Your task to perform on an android device: Find coffee shops on Maps Image 0: 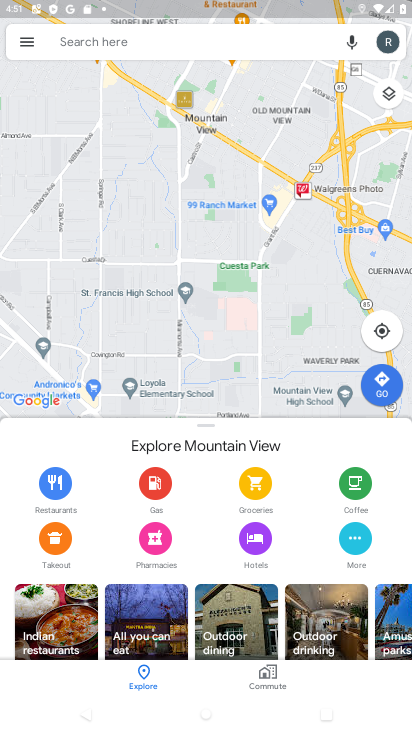
Step 0: click (123, 43)
Your task to perform on an android device: Find coffee shops on Maps Image 1: 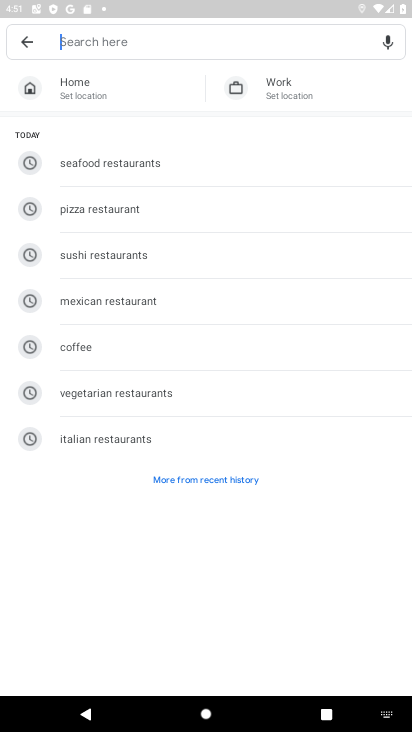
Step 1: click (111, 346)
Your task to perform on an android device: Find coffee shops on Maps Image 2: 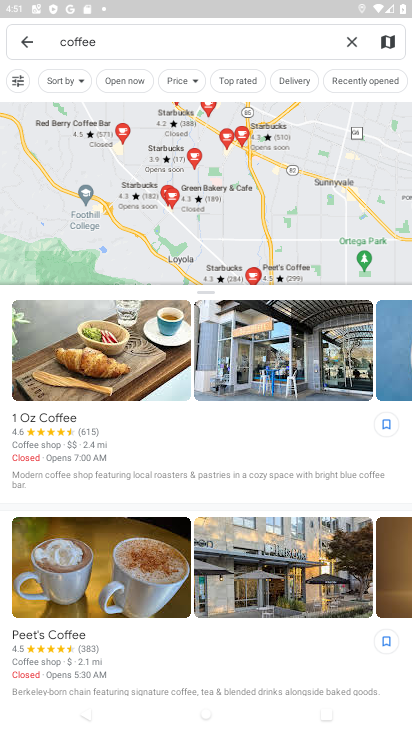
Step 2: task complete